Your task to perform on an android device: Go to Wikipedia Image 0: 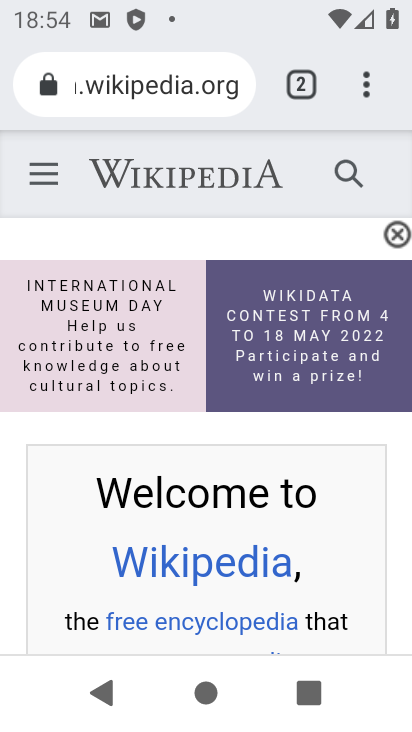
Step 0: drag from (198, 567) to (64, 157)
Your task to perform on an android device: Go to Wikipedia Image 1: 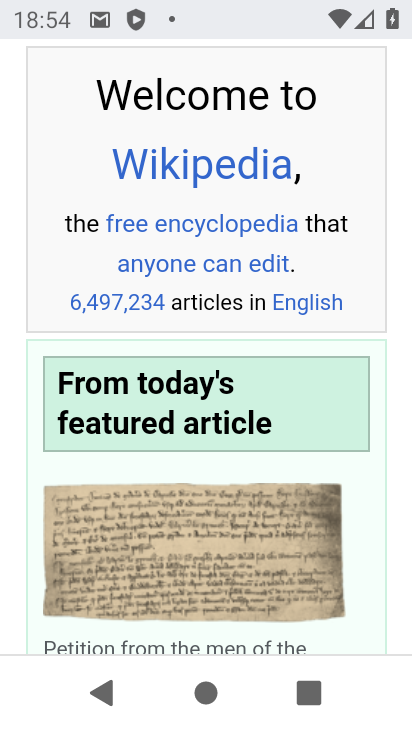
Step 1: task complete